Your task to perform on an android device: turn notification dots off Image 0: 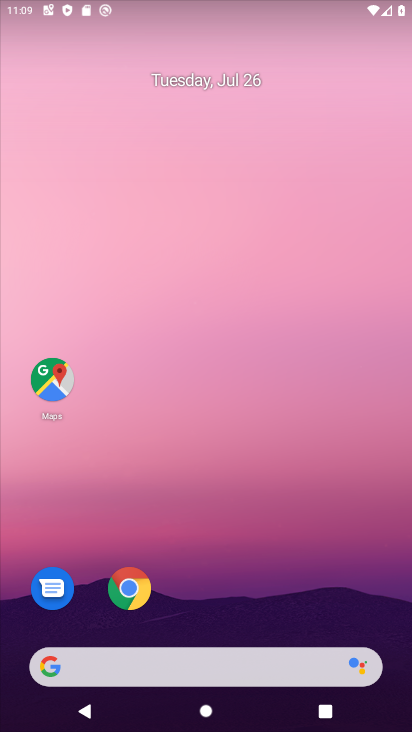
Step 0: drag from (210, 506) to (284, 65)
Your task to perform on an android device: turn notification dots off Image 1: 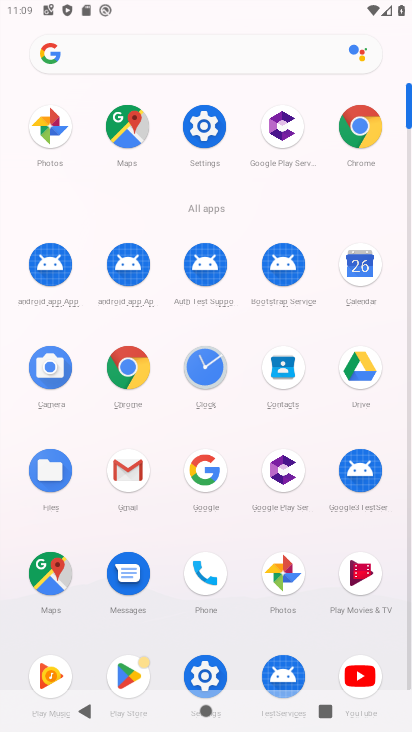
Step 1: click (213, 671)
Your task to perform on an android device: turn notification dots off Image 2: 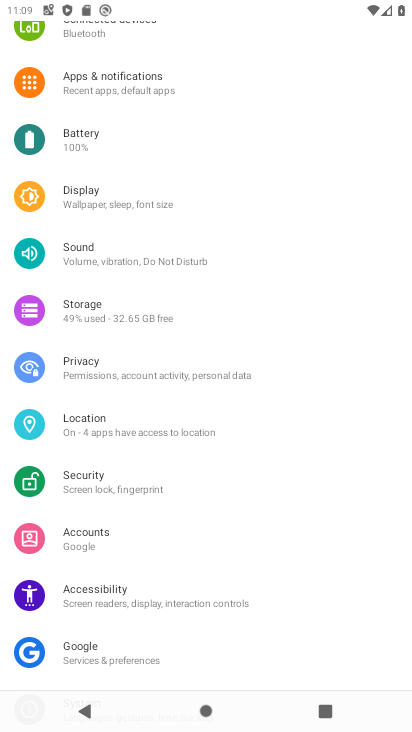
Step 2: drag from (202, 650) to (233, 314)
Your task to perform on an android device: turn notification dots off Image 3: 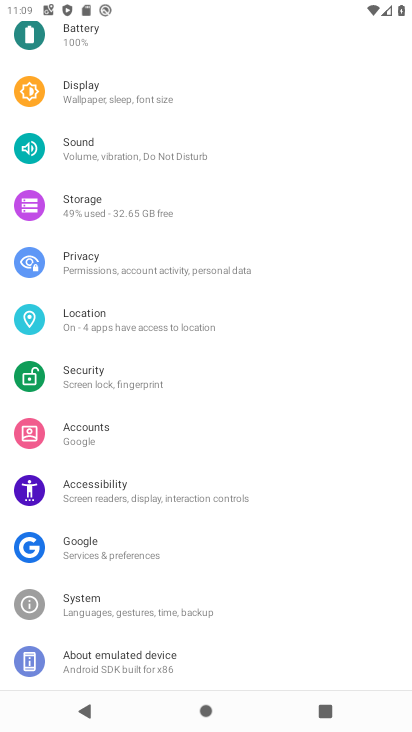
Step 3: drag from (233, 141) to (201, 585)
Your task to perform on an android device: turn notification dots off Image 4: 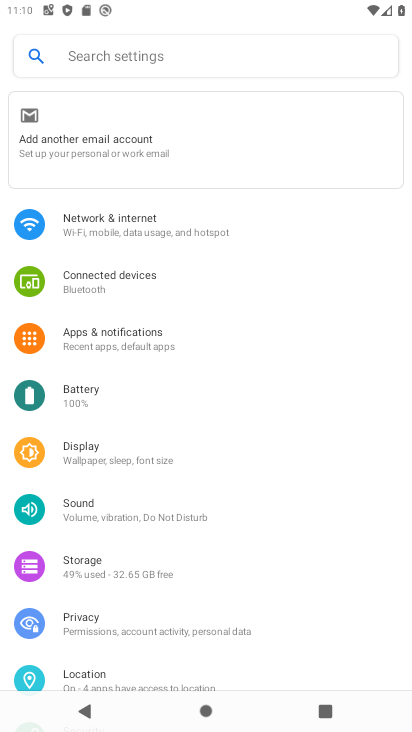
Step 4: click (102, 336)
Your task to perform on an android device: turn notification dots off Image 5: 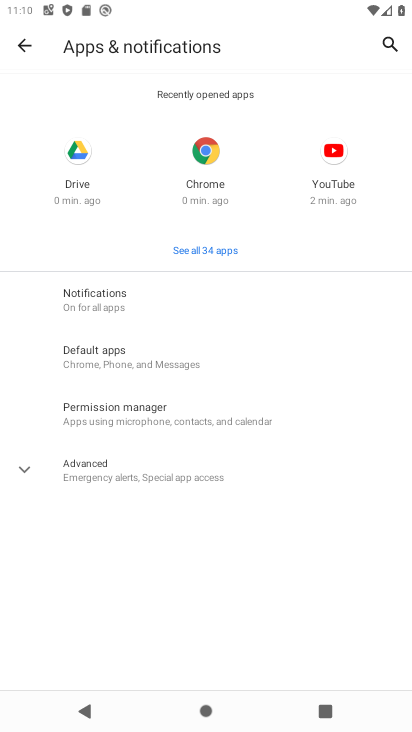
Step 5: click (78, 452)
Your task to perform on an android device: turn notification dots off Image 6: 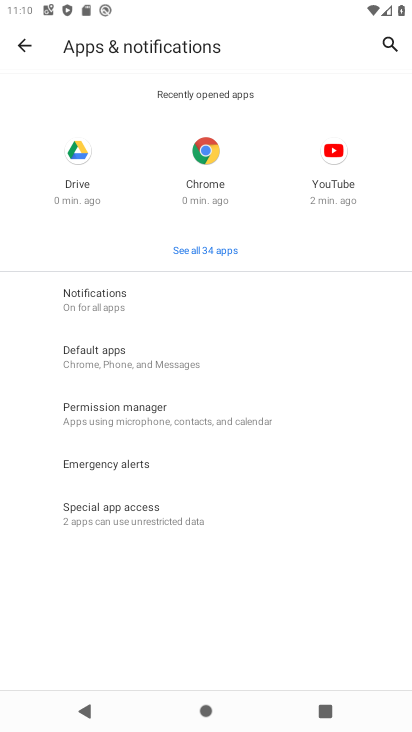
Step 6: click (130, 311)
Your task to perform on an android device: turn notification dots off Image 7: 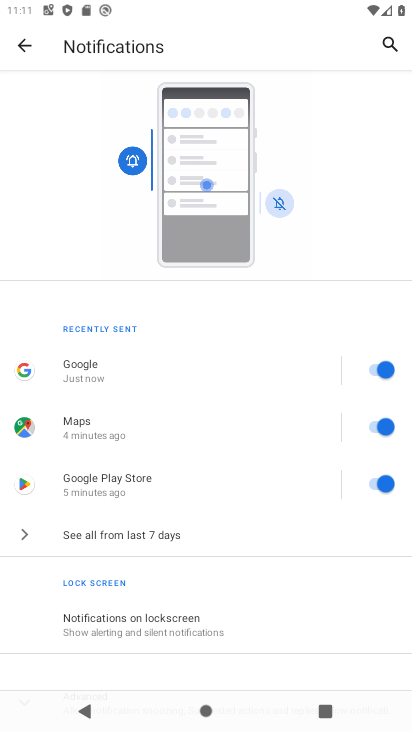
Step 7: drag from (289, 602) to (313, 290)
Your task to perform on an android device: turn notification dots off Image 8: 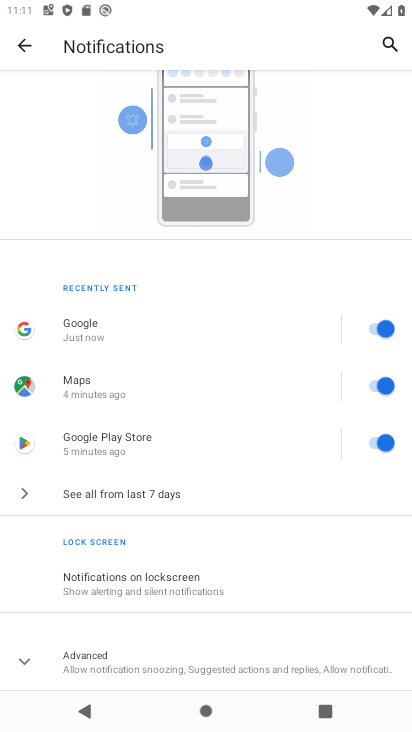
Step 8: click (117, 655)
Your task to perform on an android device: turn notification dots off Image 9: 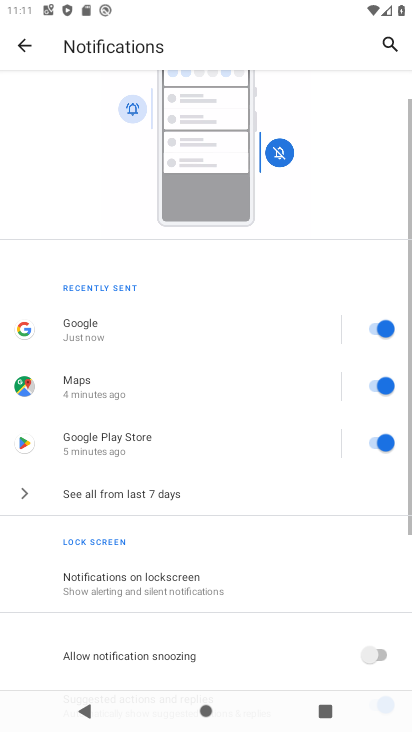
Step 9: drag from (292, 619) to (330, 291)
Your task to perform on an android device: turn notification dots off Image 10: 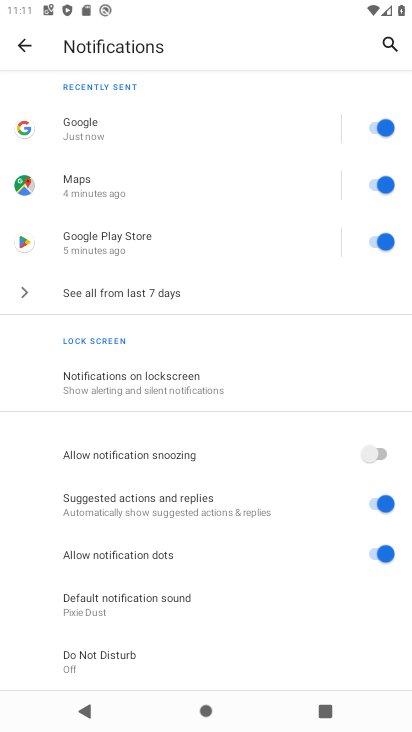
Step 10: click (371, 546)
Your task to perform on an android device: turn notification dots off Image 11: 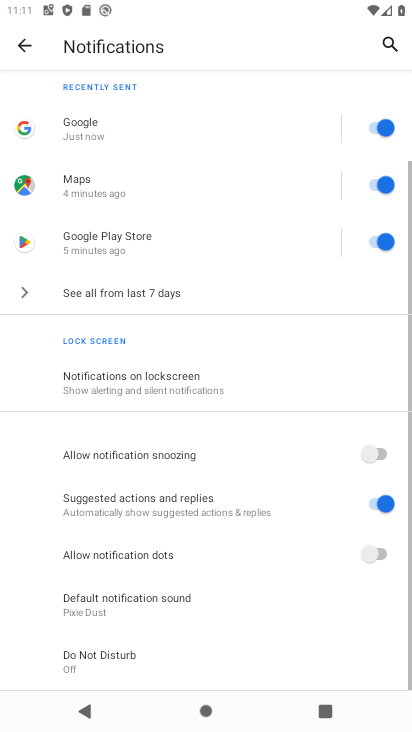
Step 11: task complete